Your task to perform on an android device: Open the map Image 0: 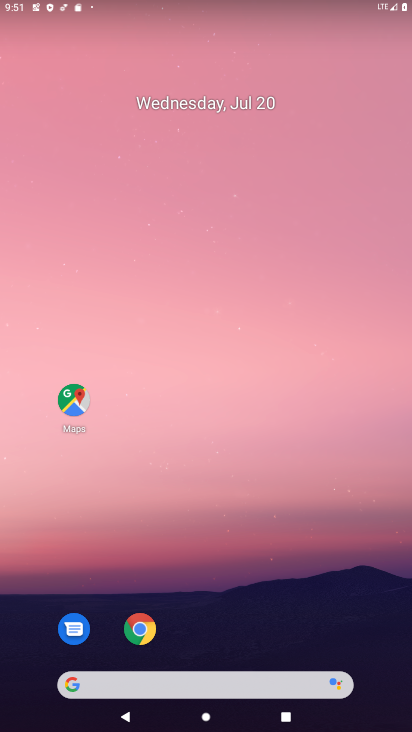
Step 0: press home button
Your task to perform on an android device: Open the map Image 1: 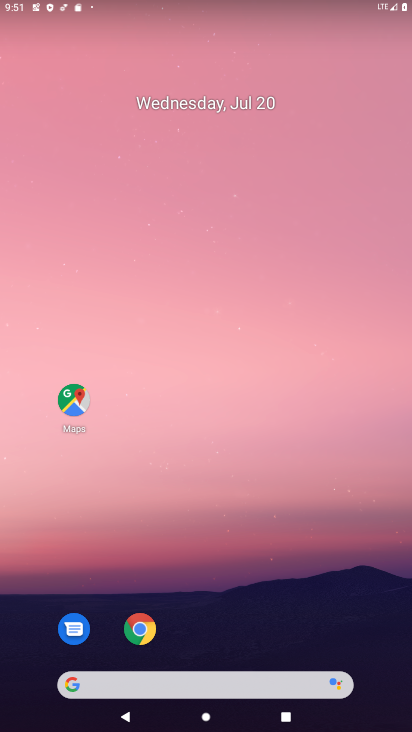
Step 1: click (80, 406)
Your task to perform on an android device: Open the map Image 2: 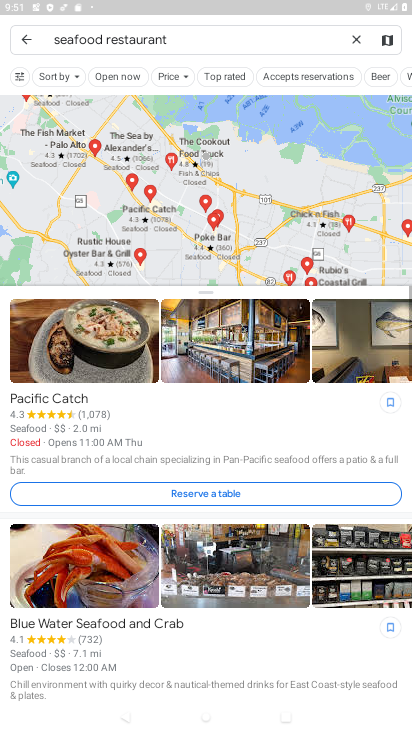
Step 2: click (20, 37)
Your task to perform on an android device: Open the map Image 3: 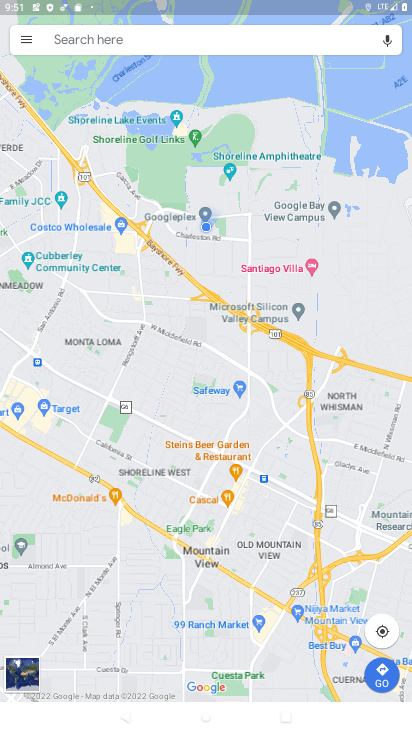
Step 3: task complete